Your task to perform on an android device: Go to Maps Image 0: 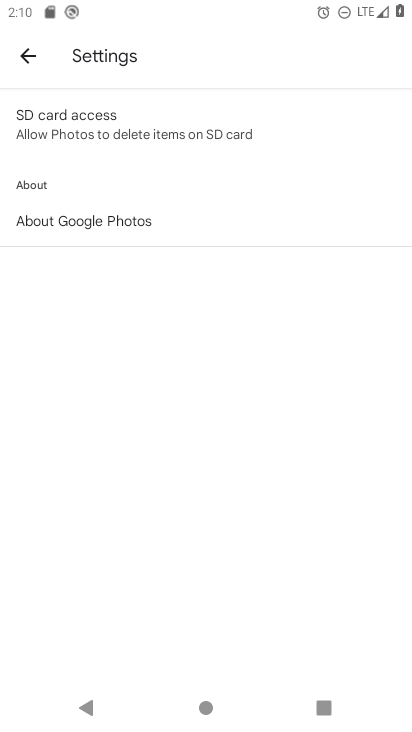
Step 0: press home button
Your task to perform on an android device: Go to Maps Image 1: 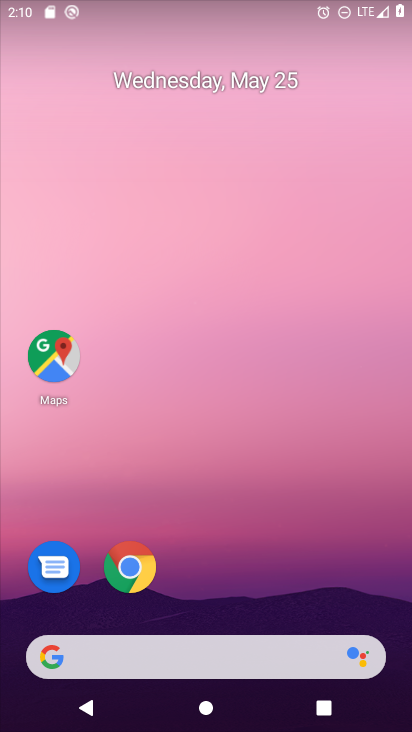
Step 1: click (53, 353)
Your task to perform on an android device: Go to Maps Image 2: 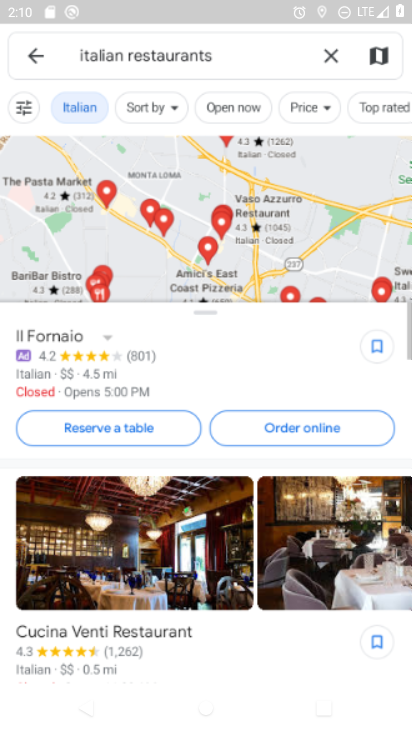
Step 2: task complete